Your task to perform on an android device: open app "Roku - Official Remote Control" (install if not already installed), go to login, and select forgot password Image 0: 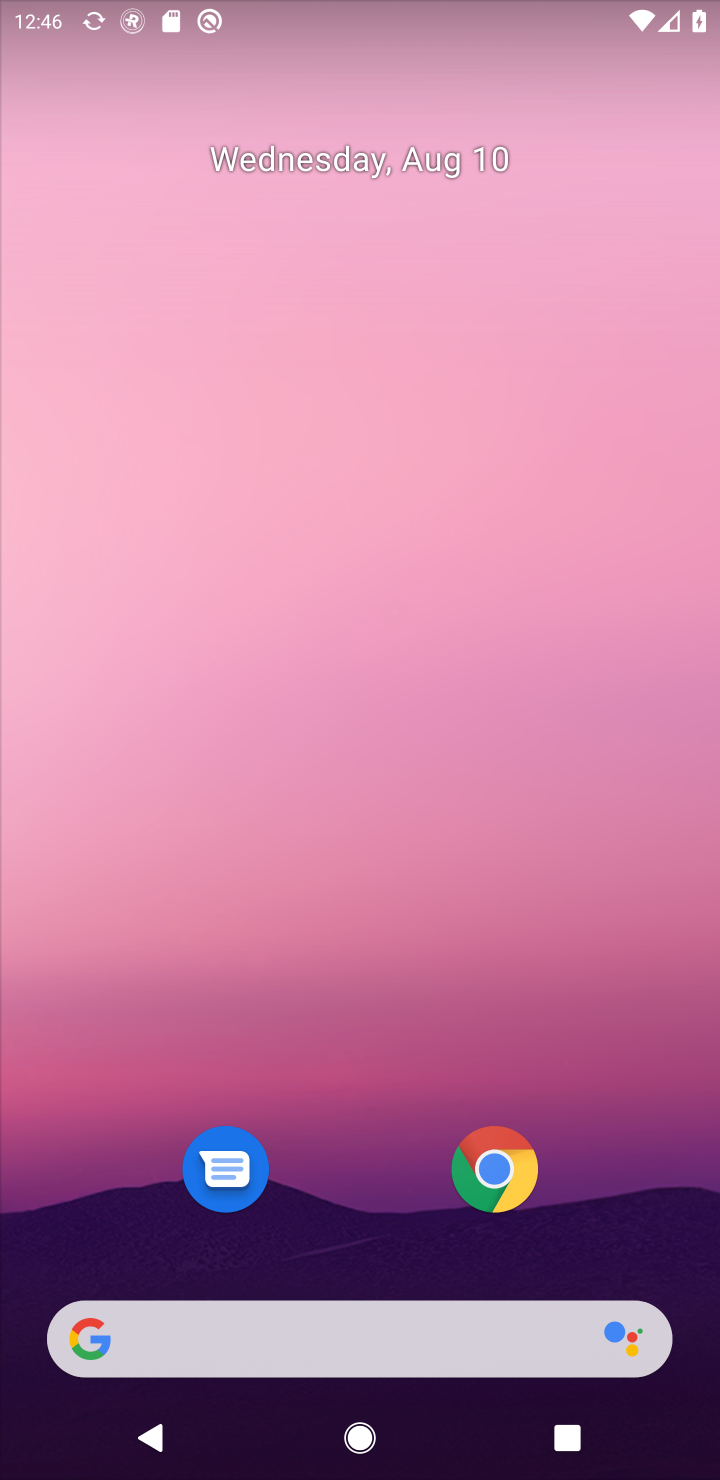
Step 0: press home button
Your task to perform on an android device: open app "Roku - Official Remote Control" (install if not already installed), go to login, and select forgot password Image 1: 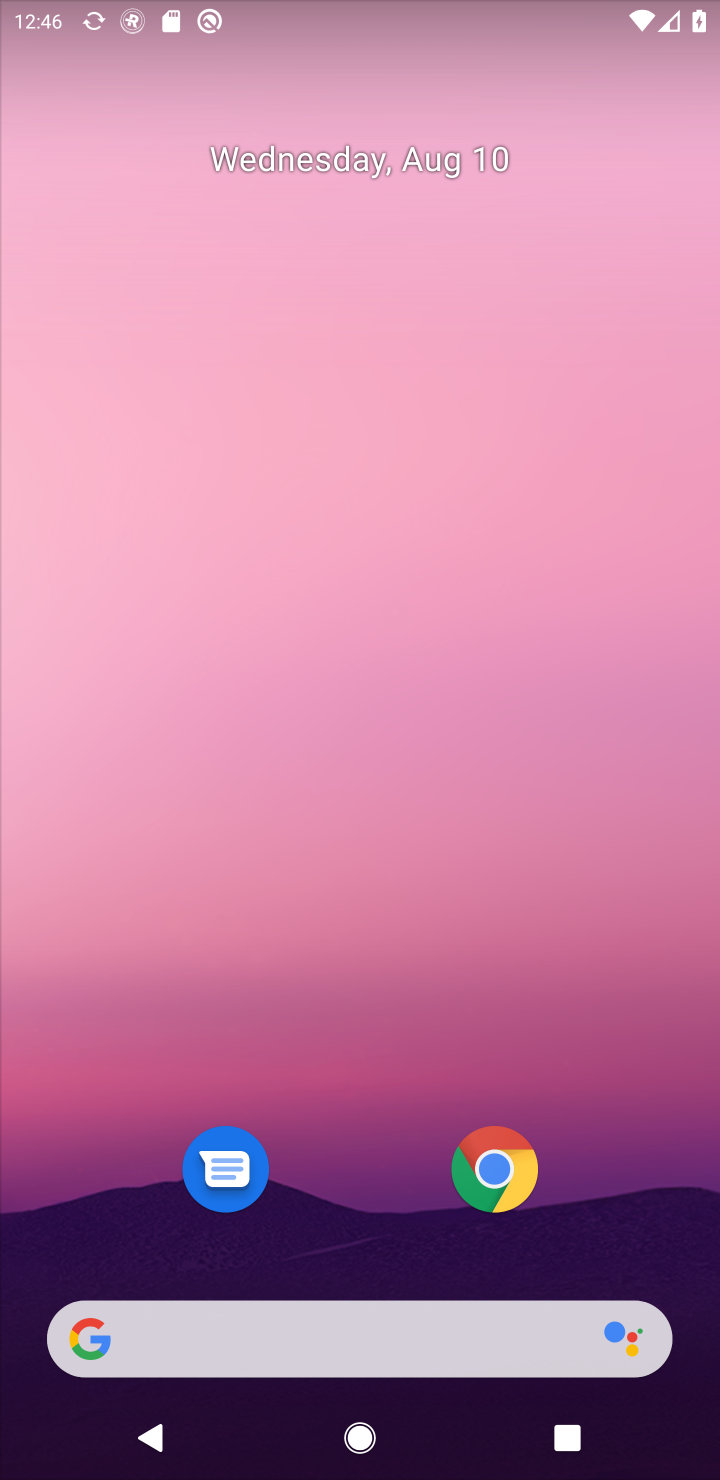
Step 1: drag from (656, 1228) to (622, 84)
Your task to perform on an android device: open app "Roku - Official Remote Control" (install if not already installed), go to login, and select forgot password Image 2: 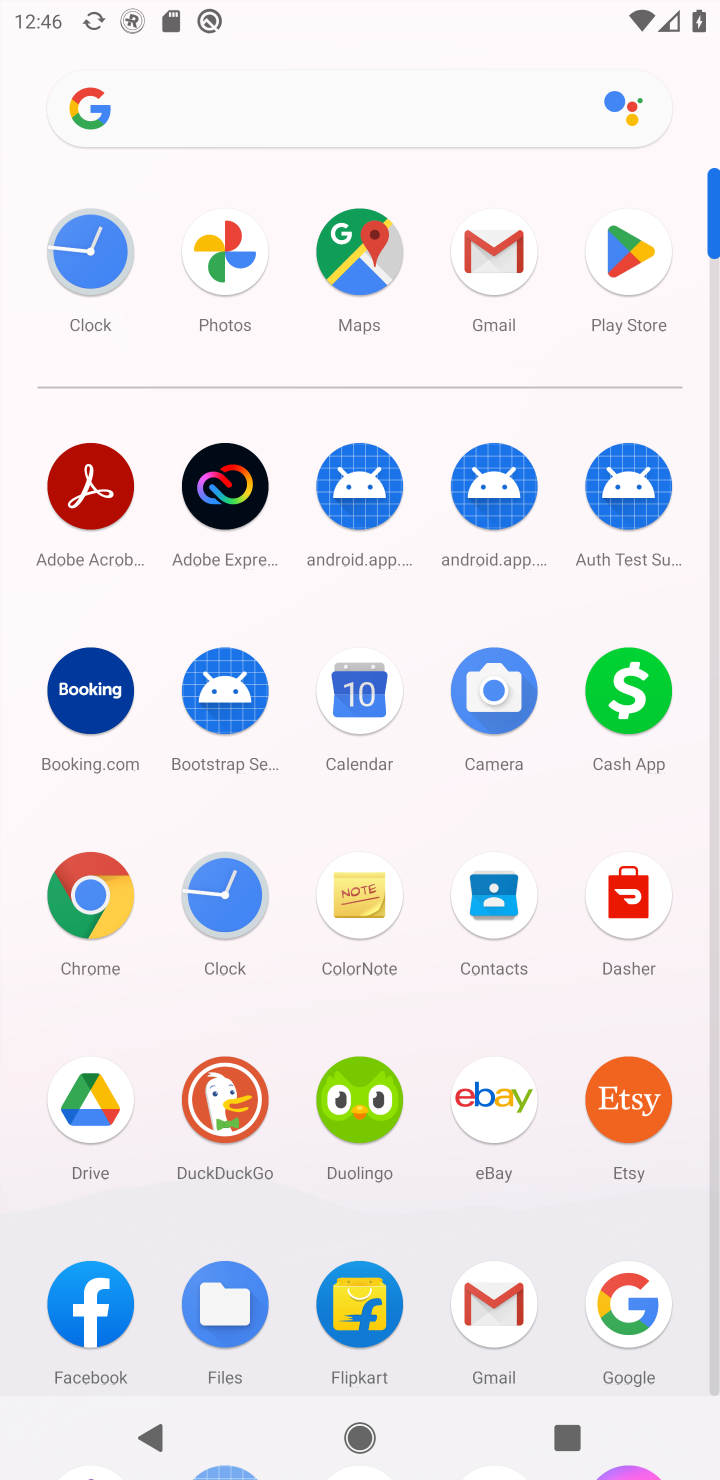
Step 2: click (625, 266)
Your task to perform on an android device: open app "Roku - Official Remote Control" (install if not already installed), go to login, and select forgot password Image 3: 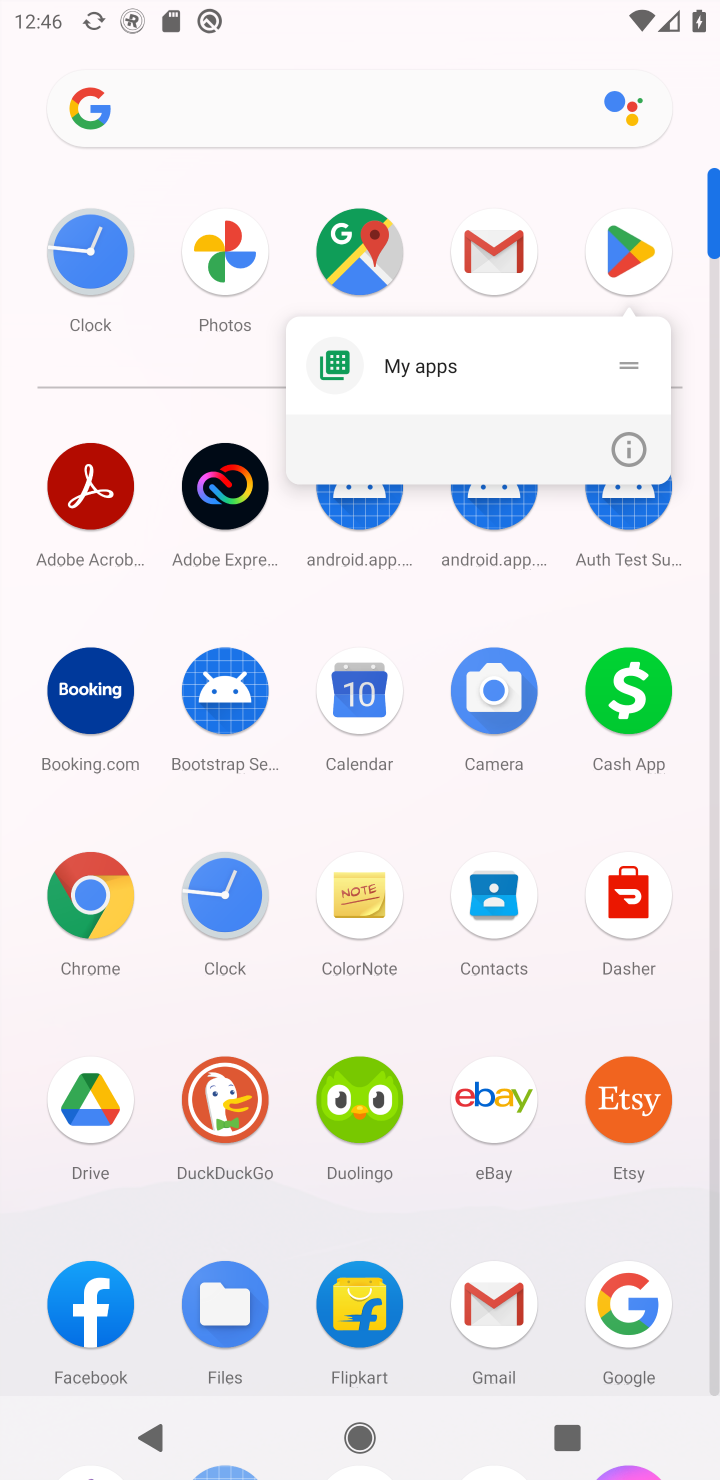
Step 3: click (610, 250)
Your task to perform on an android device: open app "Roku - Official Remote Control" (install if not already installed), go to login, and select forgot password Image 4: 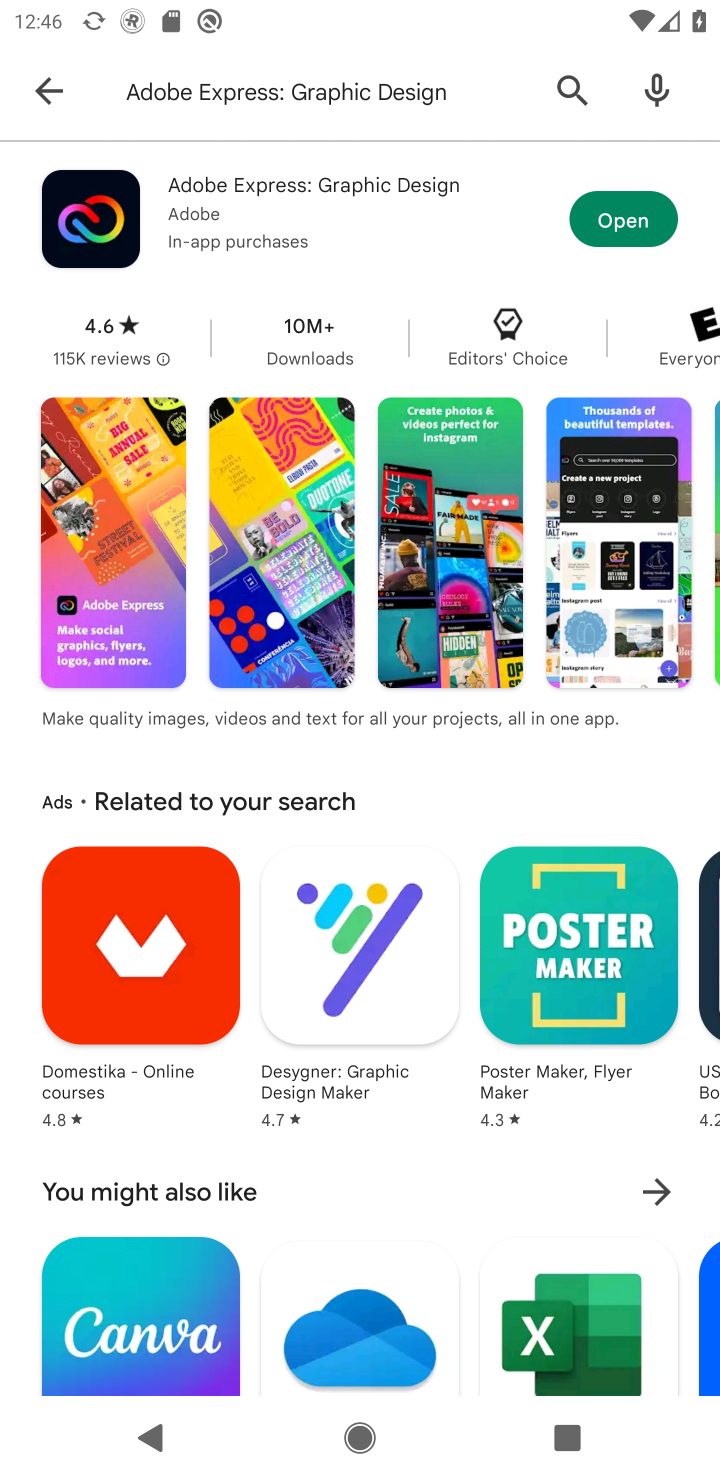
Step 4: click (566, 85)
Your task to perform on an android device: open app "Roku - Official Remote Control" (install if not already installed), go to login, and select forgot password Image 5: 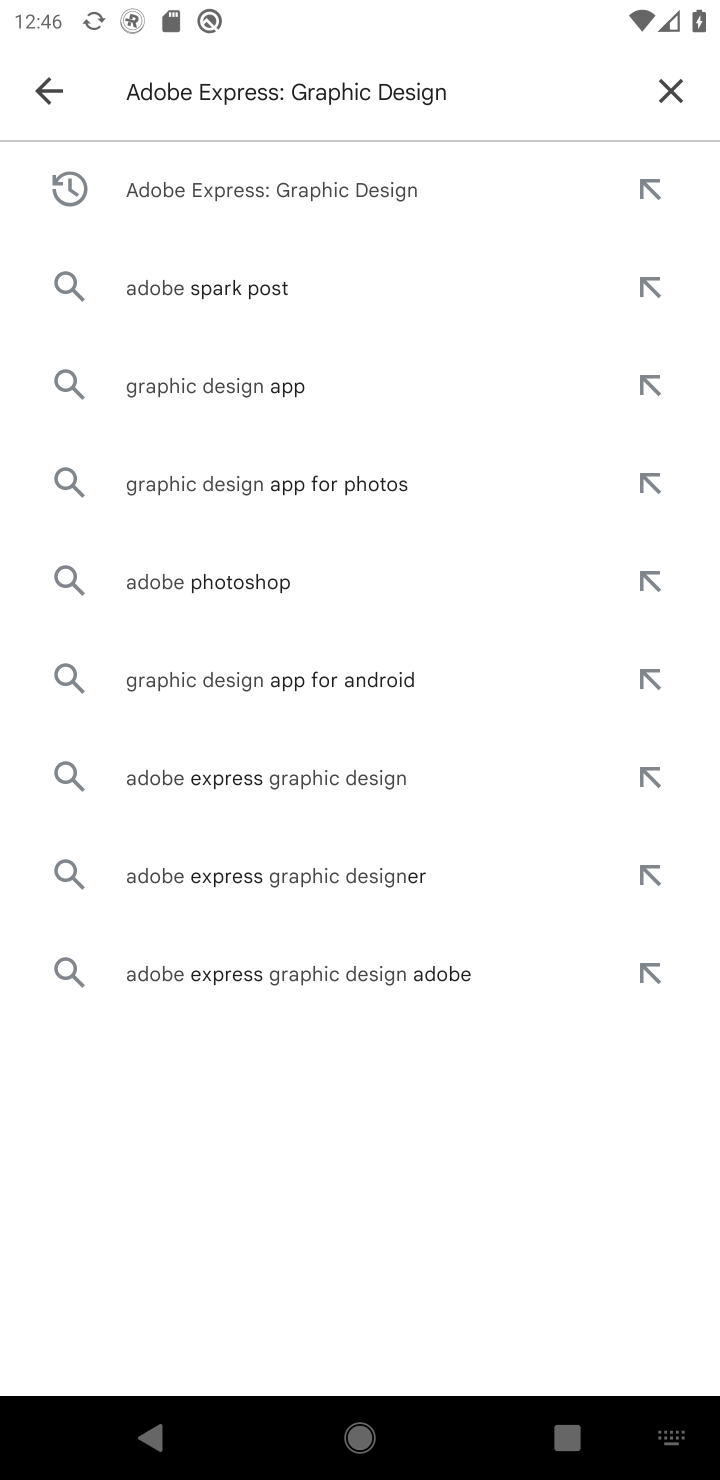
Step 5: click (681, 85)
Your task to perform on an android device: open app "Roku - Official Remote Control" (install if not already installed), go to login, and select forgot password Image 6: 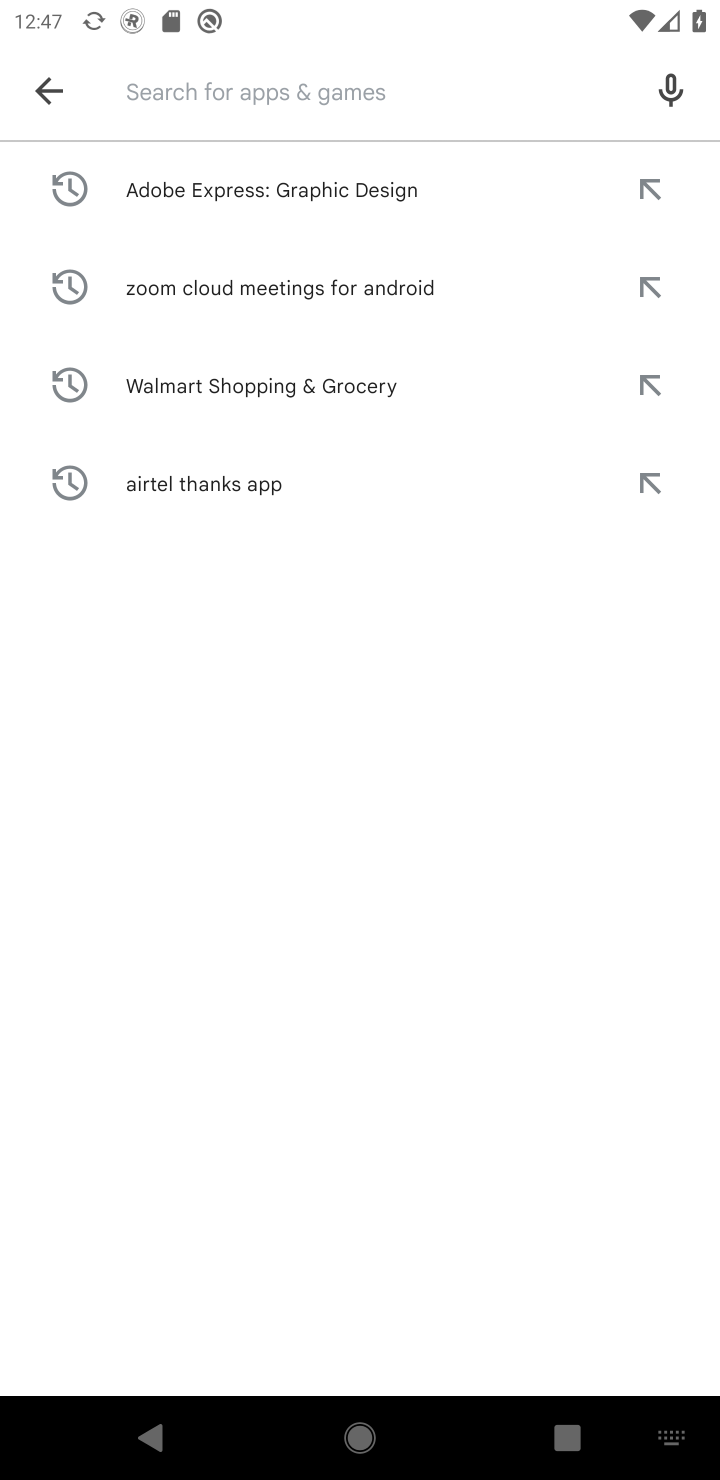
Step 6: type "Roku - Official Remote Control"
Your task to perform on an android device: open app "Roku - Official Remote Control" (install if not already installed), go to login, and select forgot password Image 7: 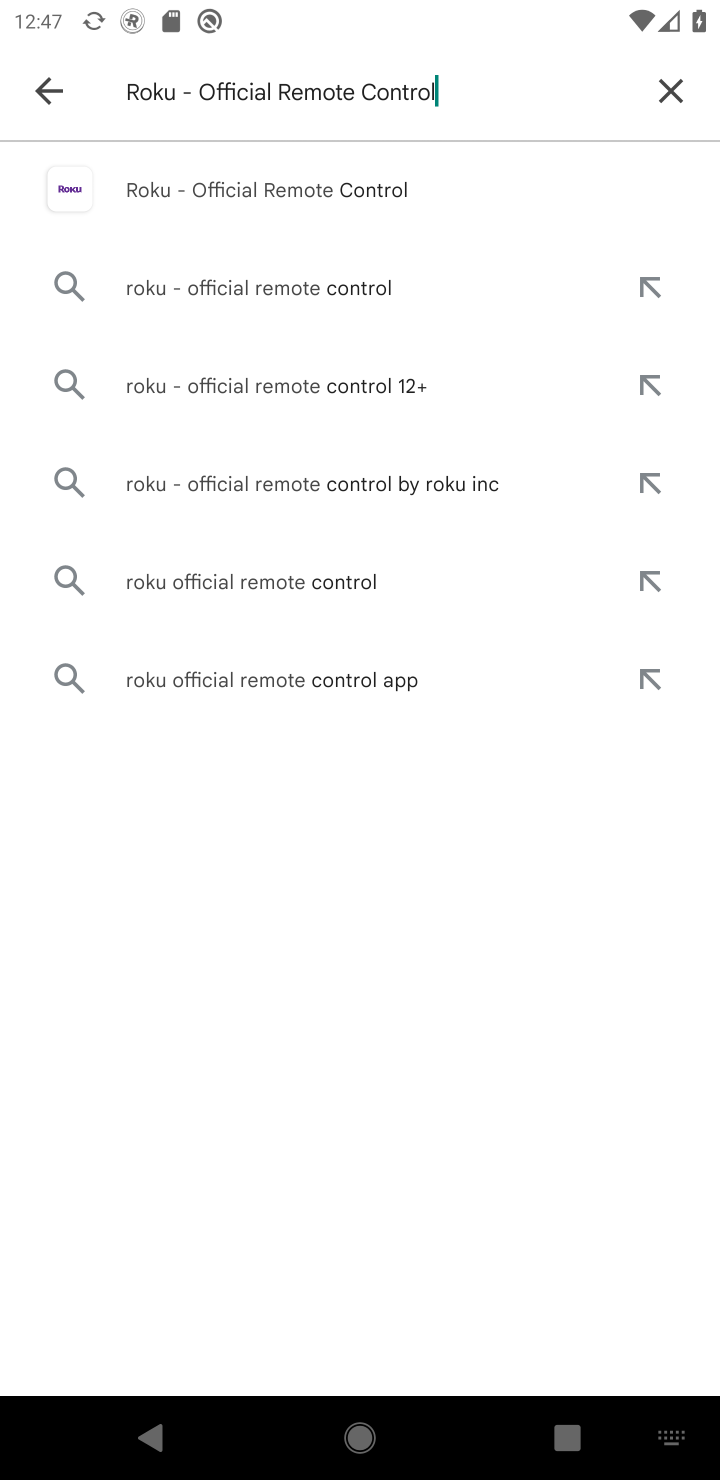
Step 7: press enter
Your task to perform on an android device: open app "Roku - Official Remote Control" (install if not already installed), go to login, and select forgot password Image 8: 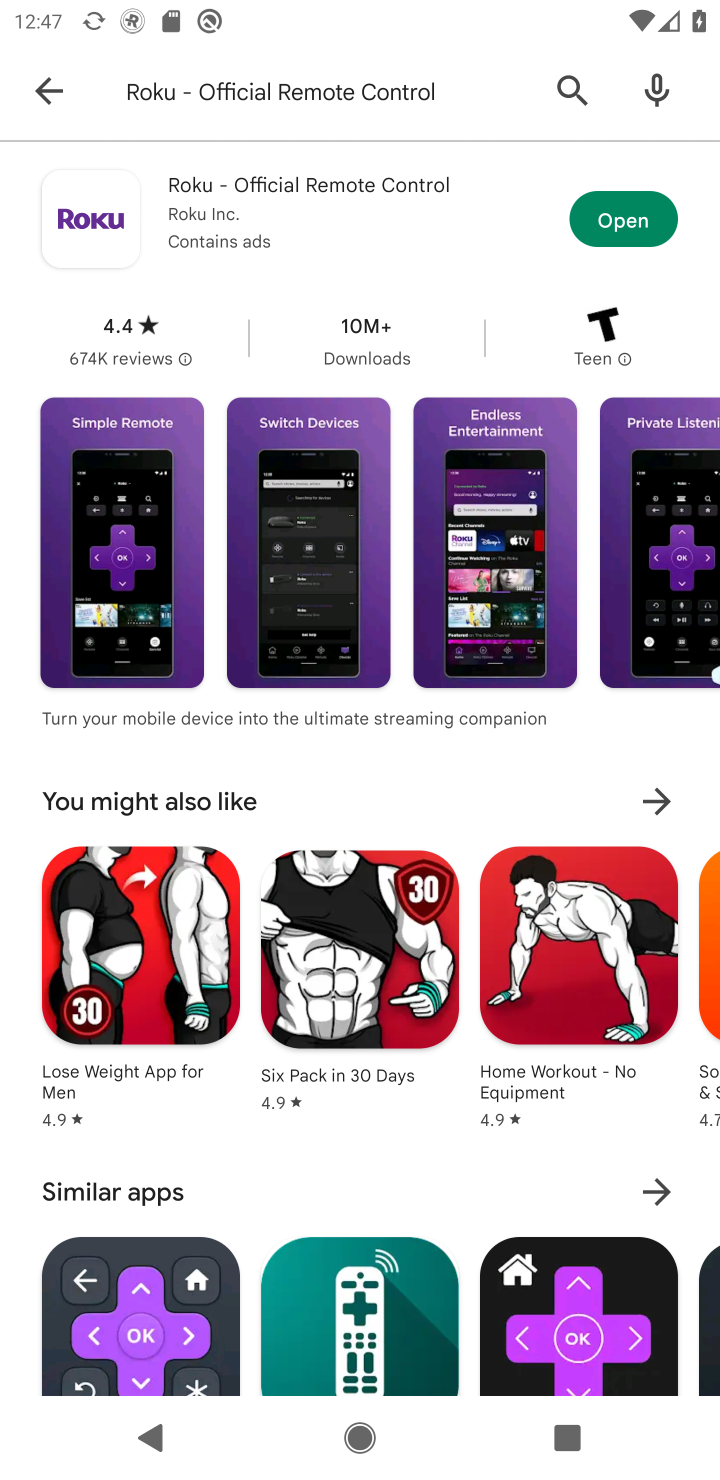
Step 8: click (621, 221)
Your task to perform on an android device: open app "Roku - Official Remote Control" (install if not already installed), go to login, and select forgot password Image 9: 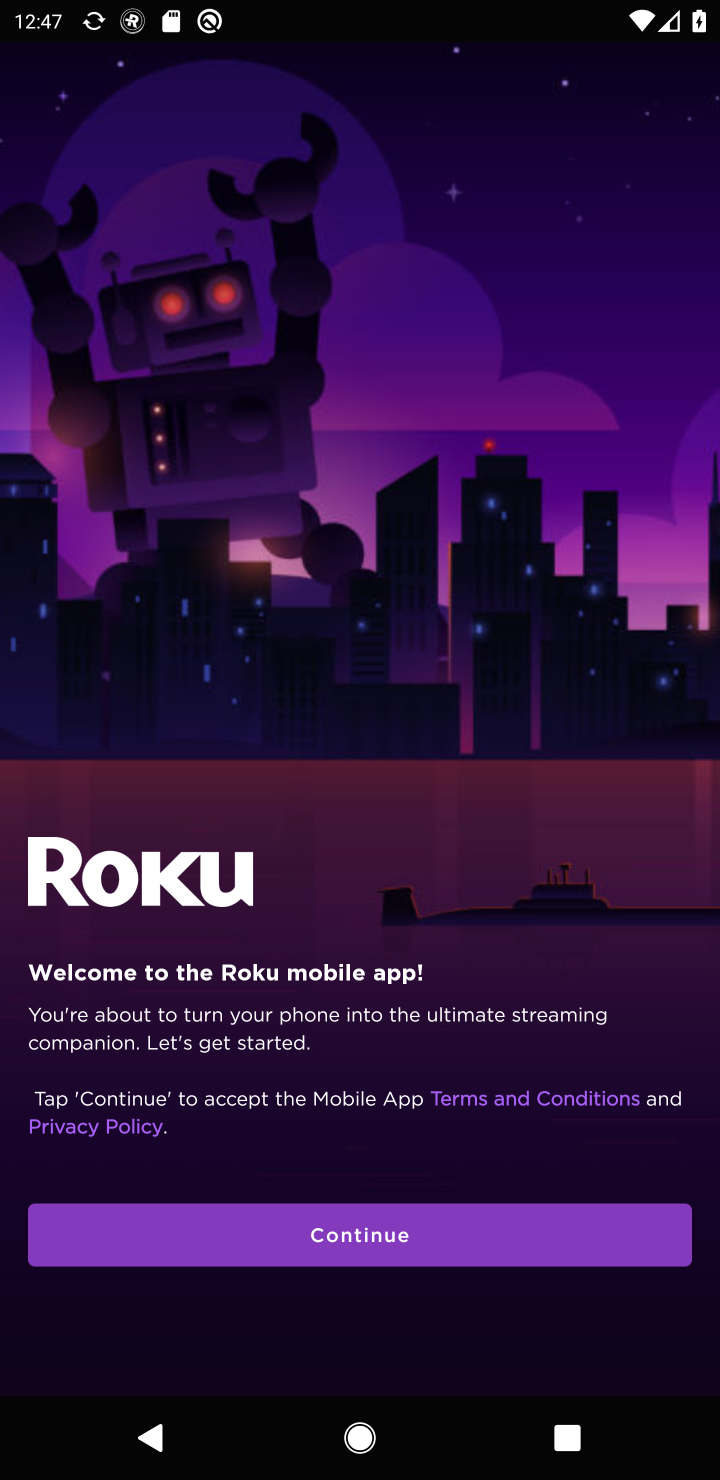
Step 9: click (367, 1248)
Your task to perform on an android device: open app "Roku - Official Remote Control" (install if not already installed), go to login, and select forgot password Image 10: 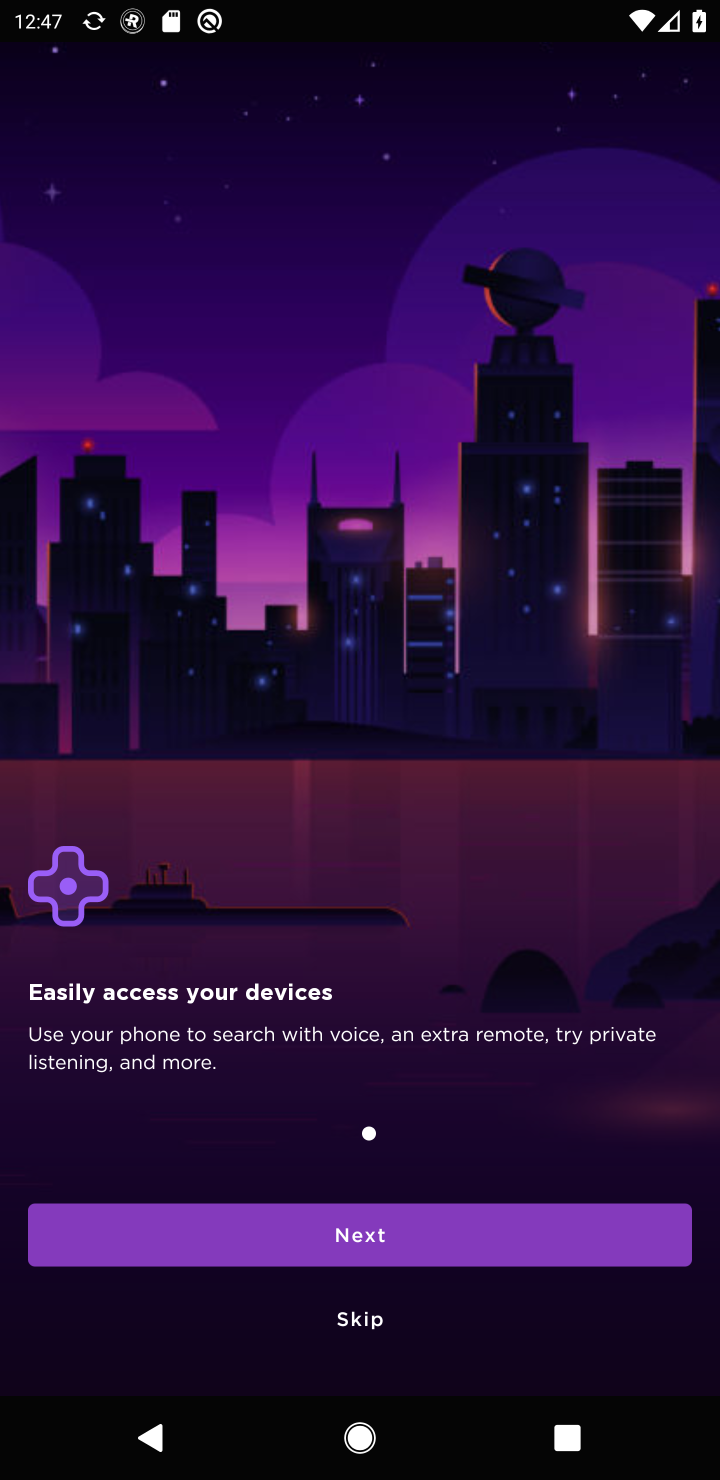
Step 10: click (444, 1228)
Your task to perform on an android device: open app "Roku - Official Remote Control" (install if not already installed), go to login, and select forgot password Image 11: 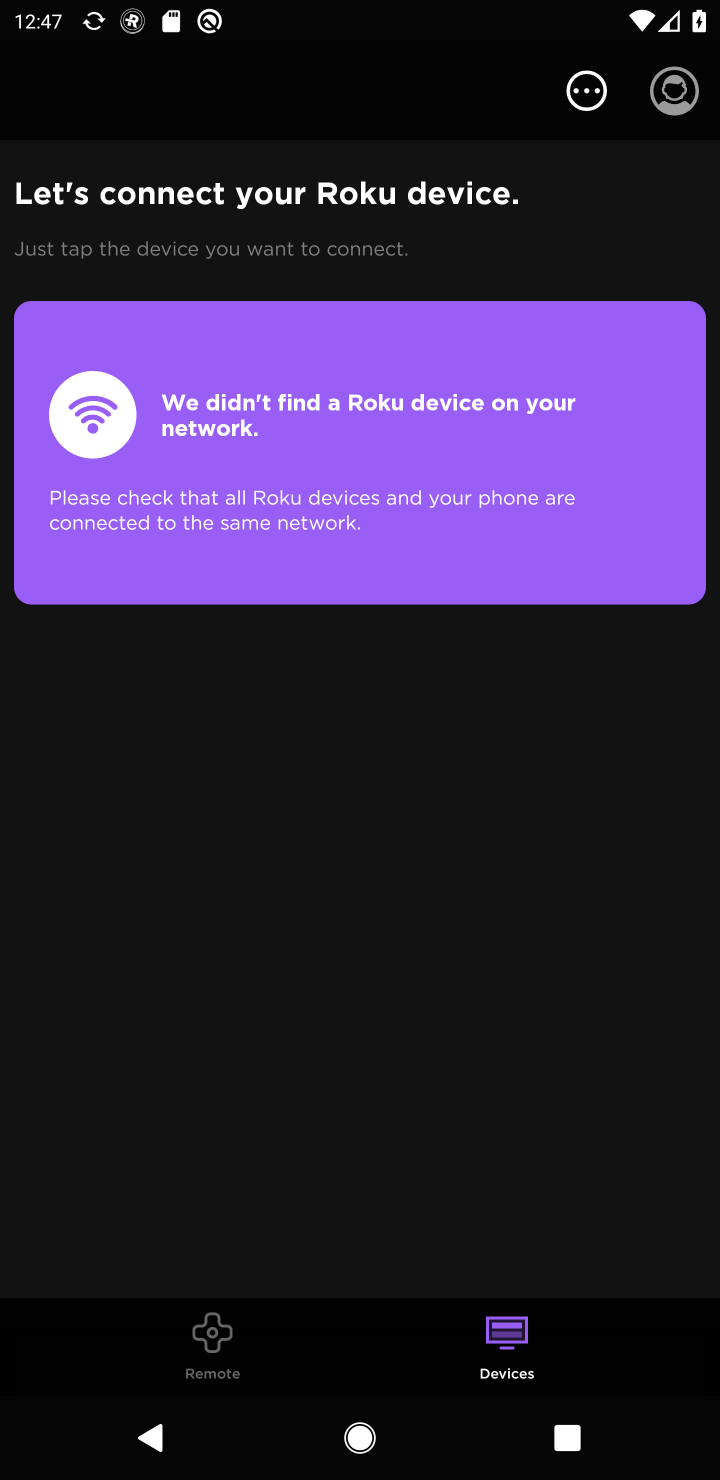
Step 11: click (685, 96)
Your task to perform on an android device: open app "Roku - Official Remote Control" (install if not already installed), go to login, and select forgot password Image 12: 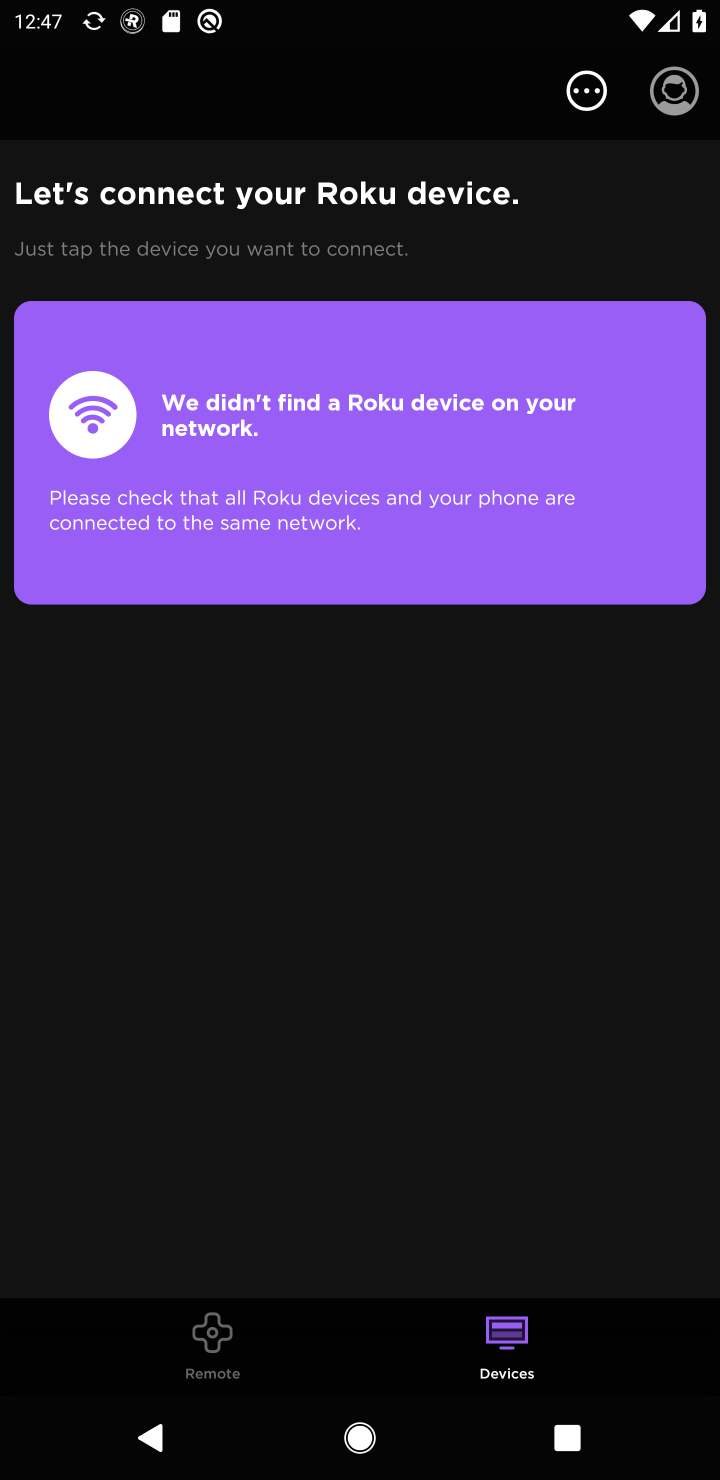
Step 12: click (686, 95)
Your task to perform on an android device: open app "Roku - Official Remote Control" (install if not already installed), go to login, and select forgot password Image 13: 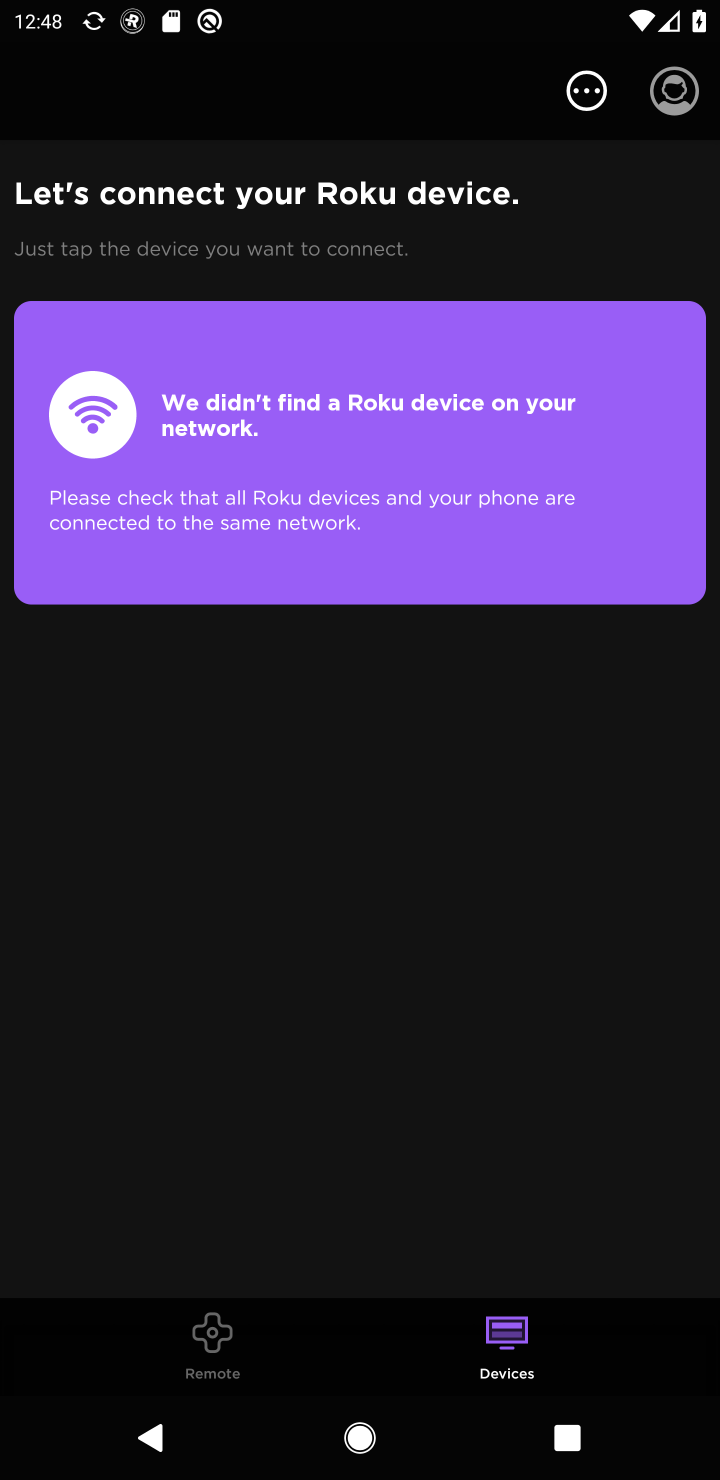
Step 13: task complete